Your task to perform on an android device: Open Google Chrome Image 0: 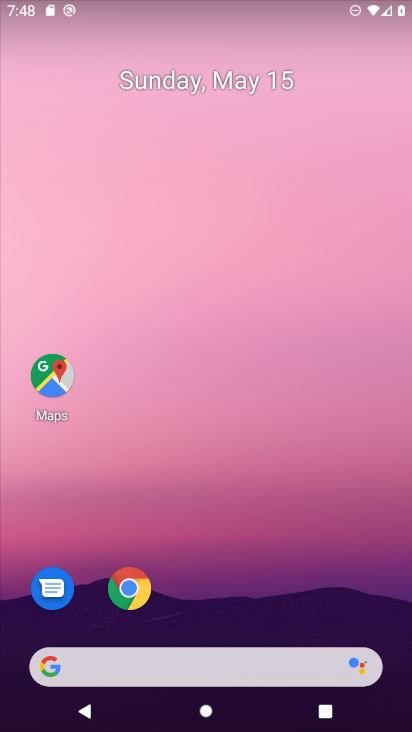
Step 0: click (128, 582)
Your task to perform on an android device: Open Google Chrome Image 1: 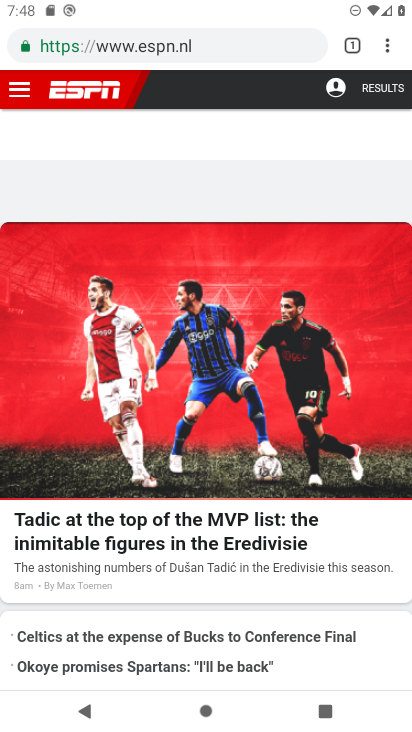
Step 1: click (352, 41)
Your task to perform on an android device: Open Google Chrome Image 2: 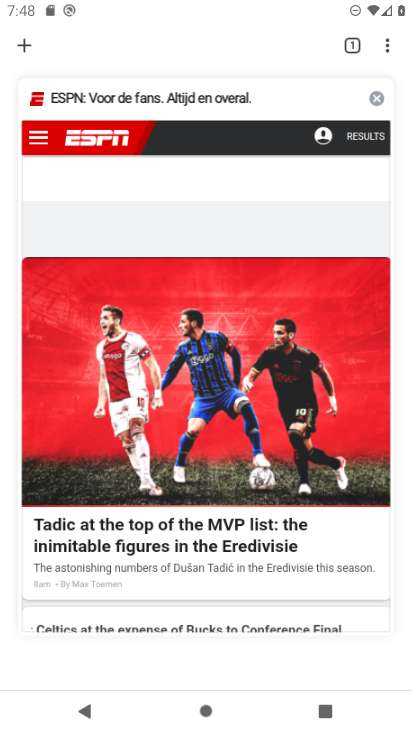
Step 2: click (375, 95)
Your task to perform on an android device: Open Google Chrome Image 3: 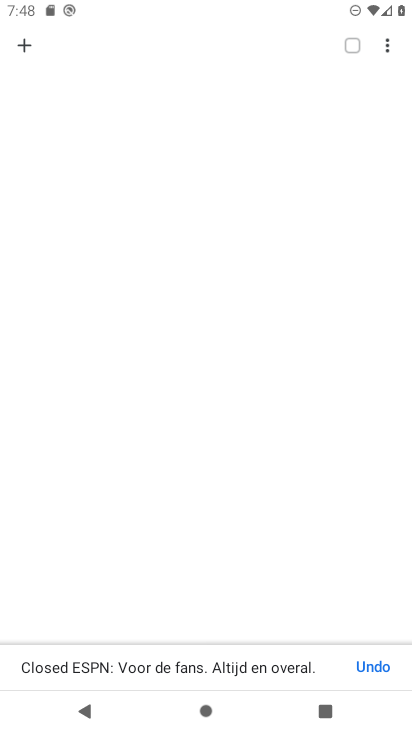
Step 3: click (27, 41)
Your task to perform on an android device: Open Google Chrome Image 4: 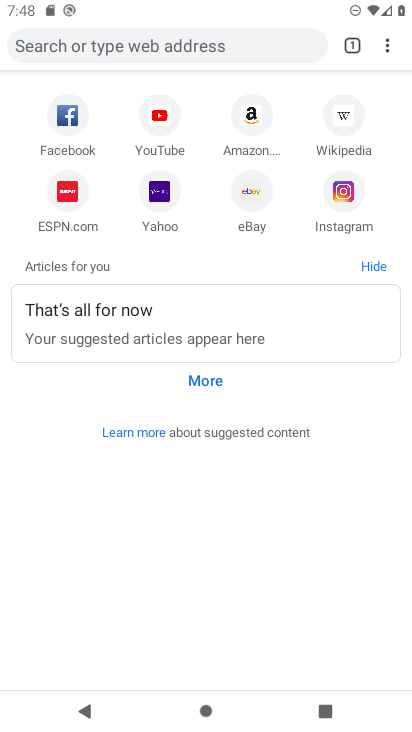
Step 4: task complete